Your task to perform on an android device: Play the last video I watched on Youtube Image 0: 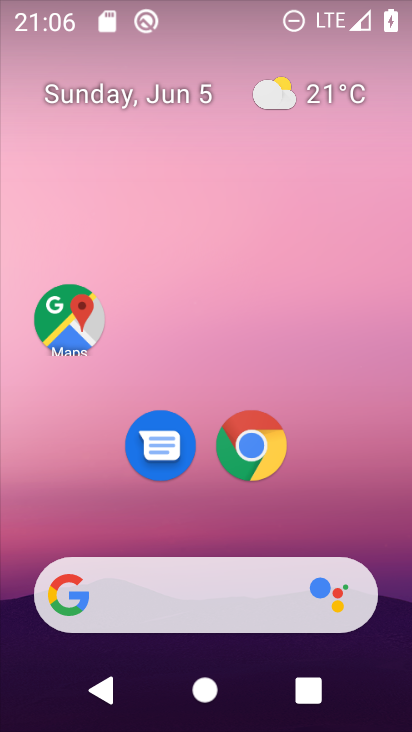
Step 0: drag from (342, 463) to (356, 154)
Your task to perform on an android device: Play the last video I watched on Youtube Image 1: 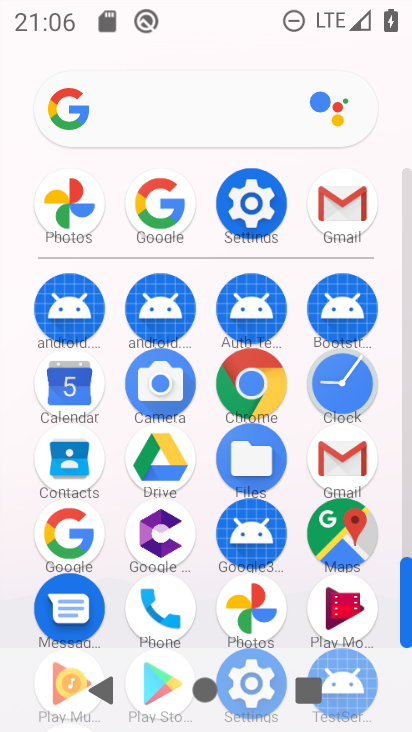
Step 1: drag from (199, 632) to (203, 364)
Your task to perform on an android device: Play the last video I watched on Youtube Image 2: 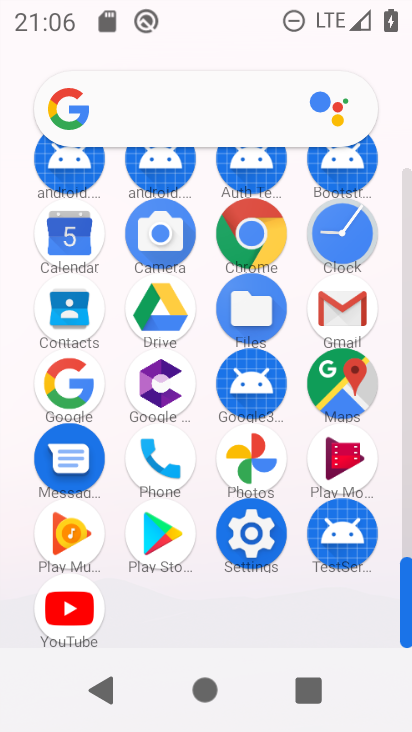
Step 2: click (69, 610)
Your task to perform on an android device: Play the last video I watched on Youtube Image 3: 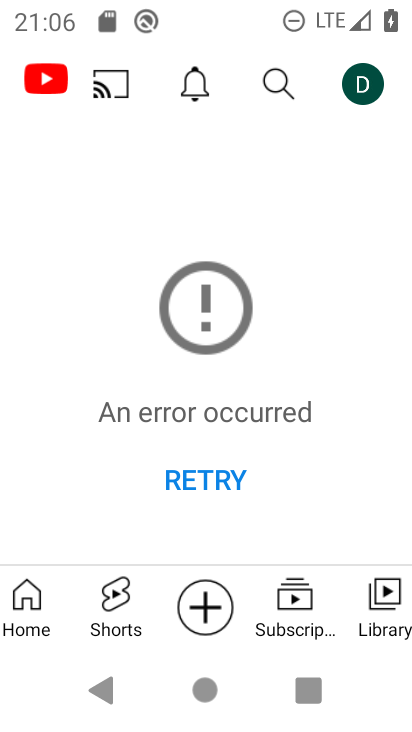
Step 3: click (390, 599)
Your task to perform on an android device: Play the last video I watched on Youtube Image 4: 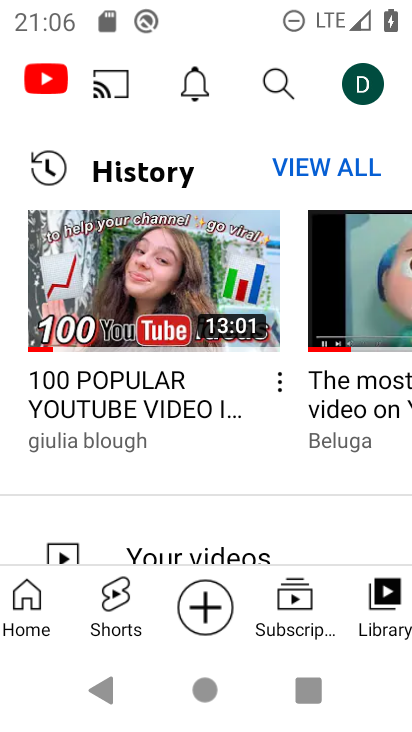
Step 4: drag from (253, 499) to (263, 602)
Your task to perform on an android device: Play the last video I watched on Youtube Image 5: 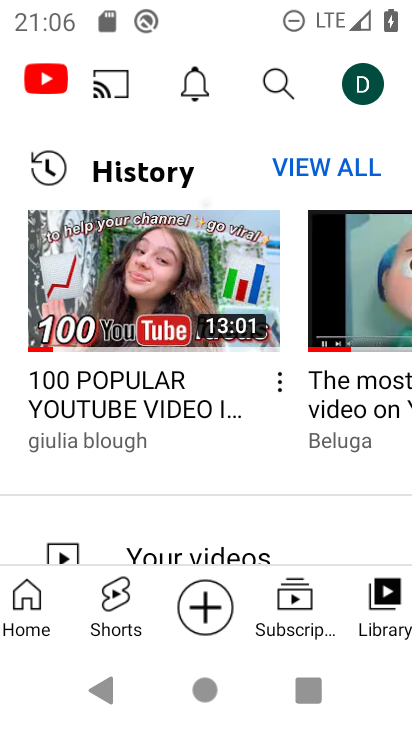
Step 5: click (146, 170)
Your task to perform on an android device: Play the last video I watched on Youtube Image 6: 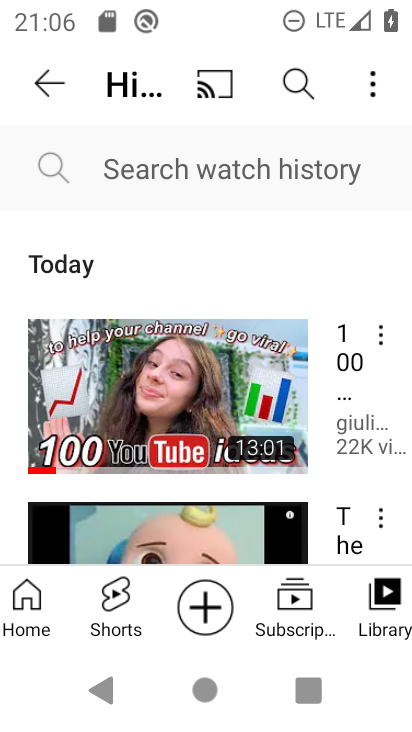
Step 6: task complete